Your task to perform on an android device: check storage Image 0: 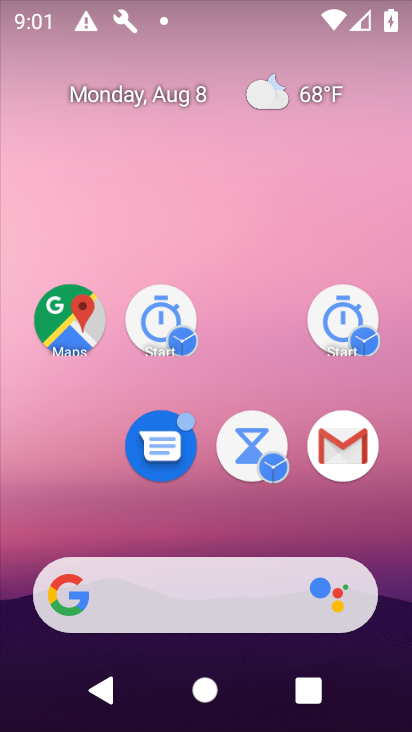
Step 0: drag from (238, 375) to (229, 132)
Your task to perform on an android device: check storage Image 1: 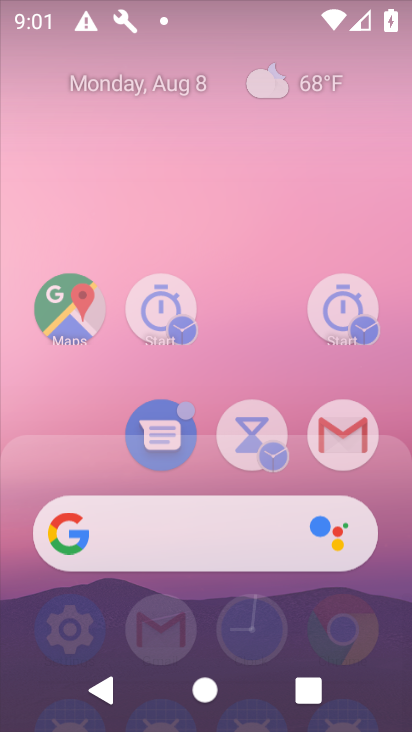
Step 1: drag from (221, 531) to (190, 165)
Your task to perform on an android device: check storage Image 2: 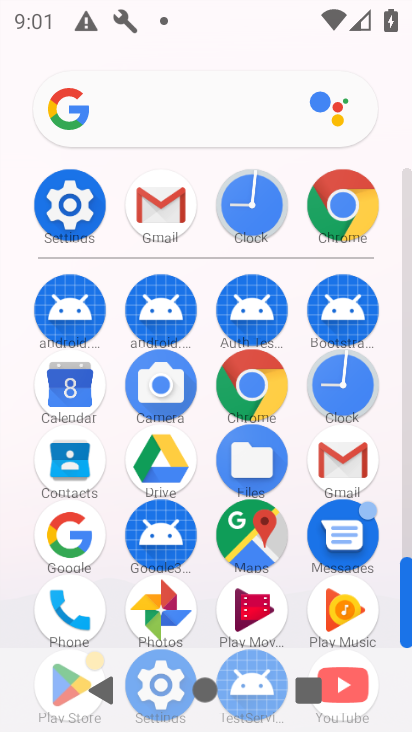
Step 2: drag from (220, 179) to (211, 5)
Your task to perform on an android device: check storage Image 3: 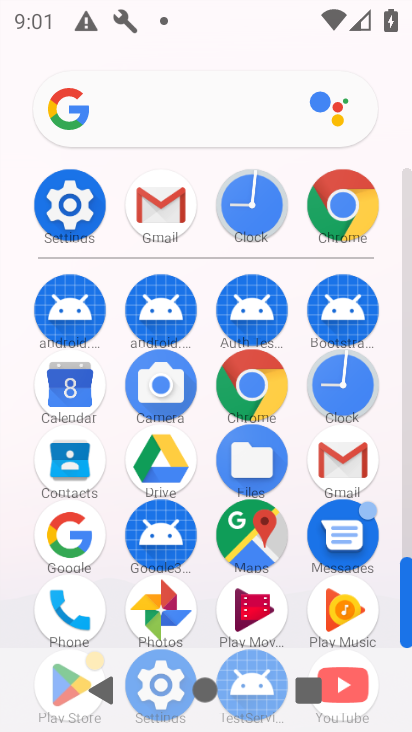
Step 3: drag from (203, 445) to (217, 254)
Your task to perform on an android device: check storage Image 4: 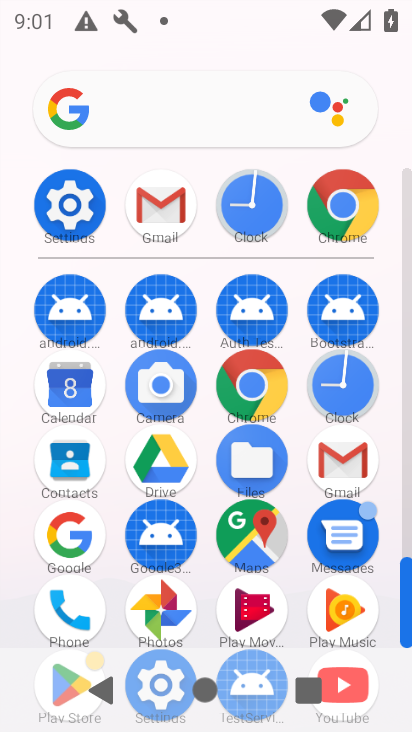
Step 4: drag from (227, 427) to (225, 145)
Your task to perform on an android device: check storage Image 5: 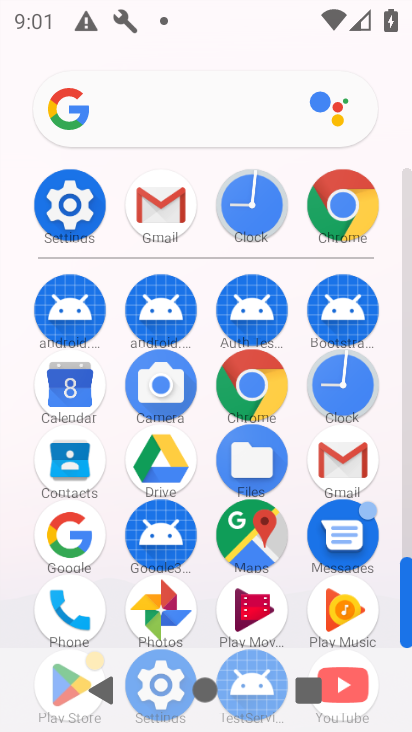
Step 5: drag from (184, 494) to (175, 201)
Your task to perform on an android device: check storage Image 6: 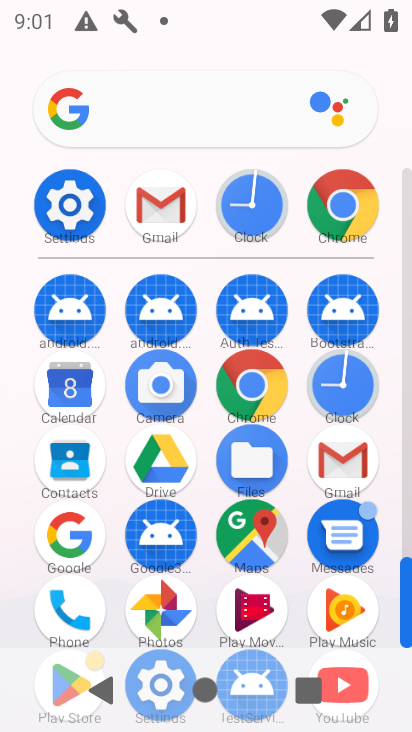
Step 6: drag from (223, 463) to (203, 184)
Your task to perform on an android device: check storage Image 7: 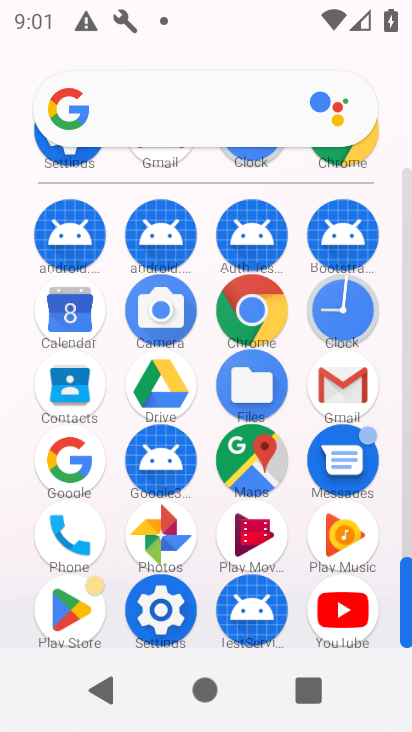
Step 7: drag from (162, 280) to (162, 225)
Your task to perform on an android device: check storage Image 8: 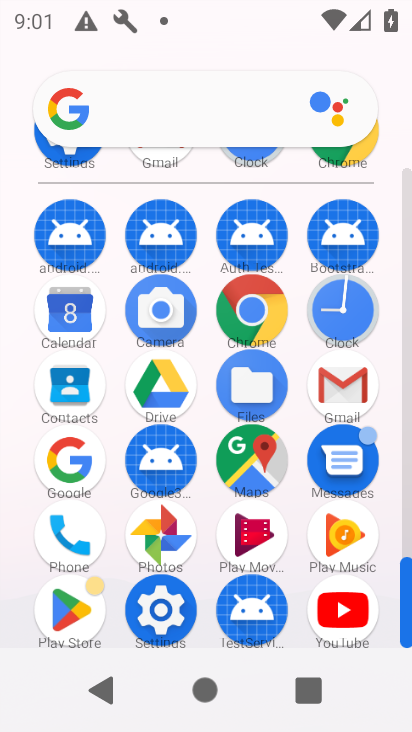
Step 8: click (161, 626)
Your task to perform on an android device: check storage Image 9: 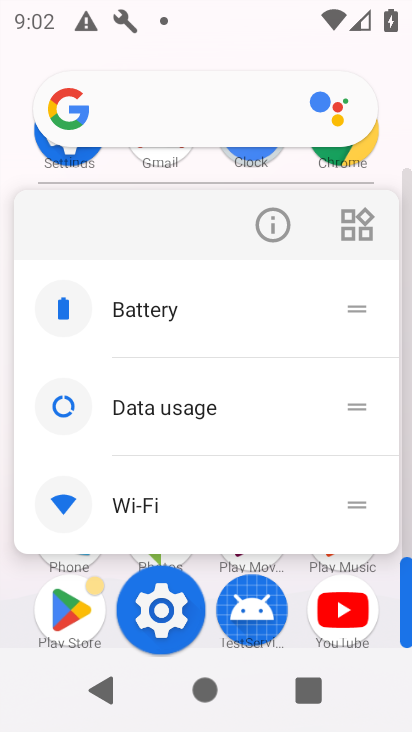
Step 9: click (165, 614)
Your task to perform on an android device: check storage Image 10: 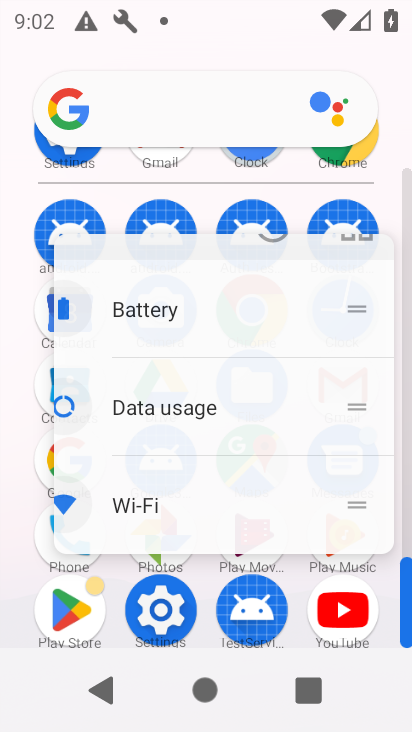
Step 10: click (164, 613)
Your task to perform on an android device: check storage Image 11: 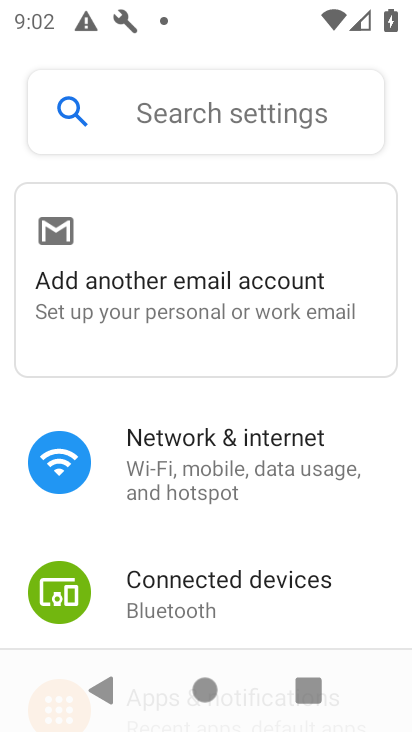
Step 11: drag from (210, 554) to (189, 442)
Your task to perform on an android device: check storage Image 12: 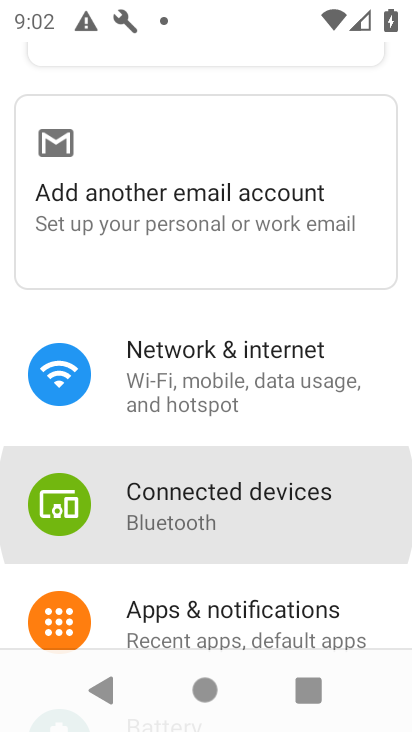
Step 12: drag from (198, 519) to (198, 414)
Your task to perform on an android device: check storage Image 13: 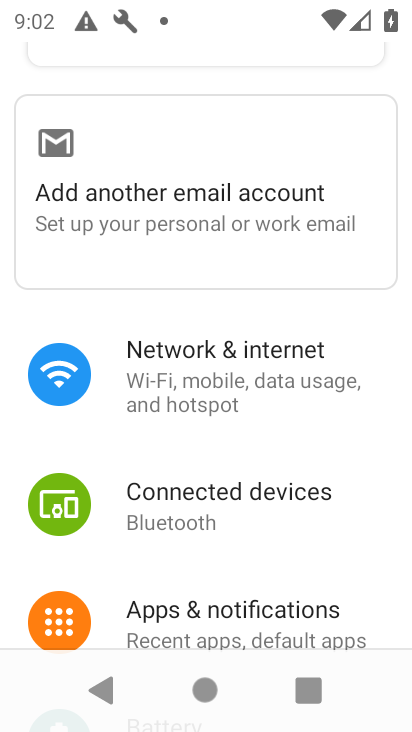
Step 13: click (213, 233)
Your task to perform on an android device: check storage Image 14: 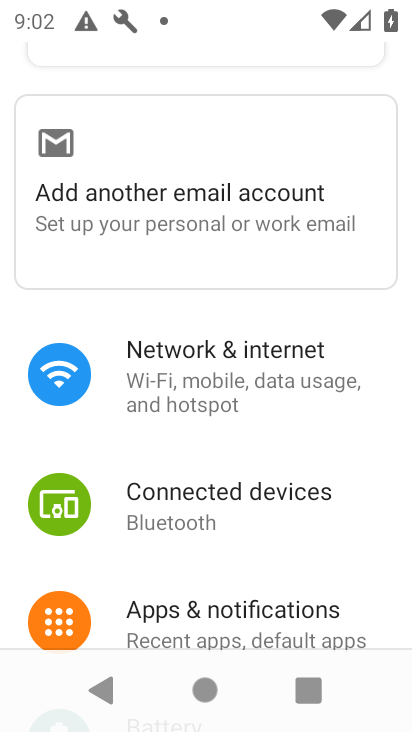
Step 14: drag from (201, 480) to (191, 334)
Your task to perform on an android device: check storage Image 15: 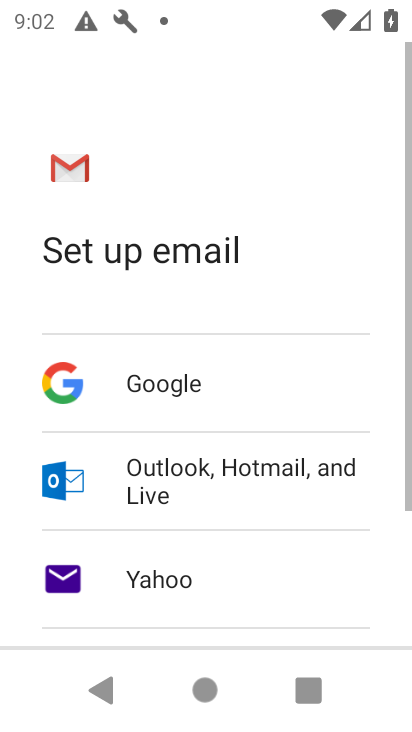
Step 15: drag from (221, 490) to (221, 315)
Your task to perform on an android device: check storage Image 16: 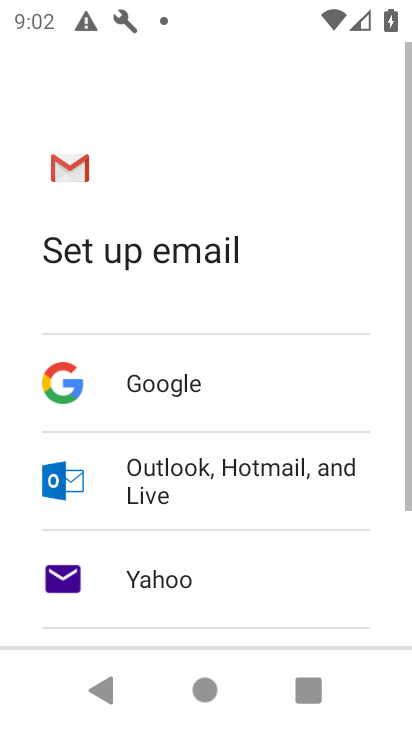
Step 16: click (286, 342)
Your task to perform on an android device: check storage Image 17: 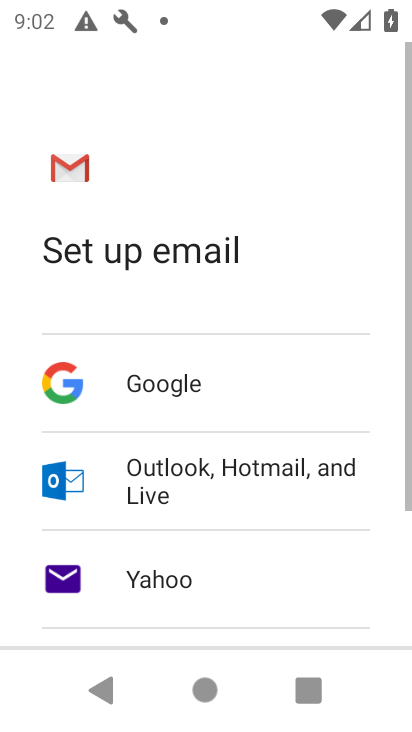
Step 17: drag from (237, 363) to (240, 446)
Your task to perform on an android device: check storage Image 18: 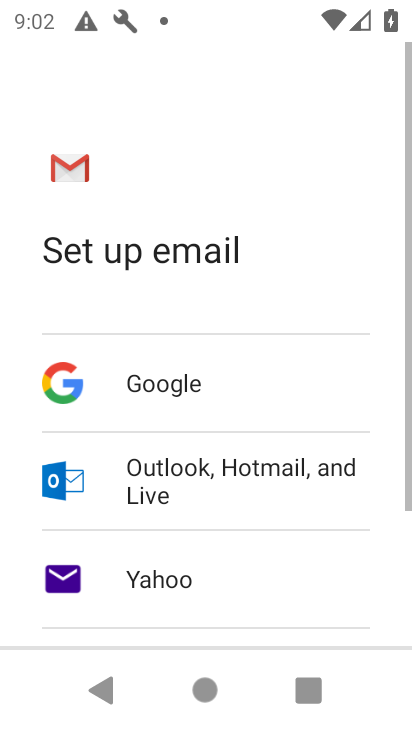
Step 18: press back button
Your task to perform on an android device: check storage Image 19: 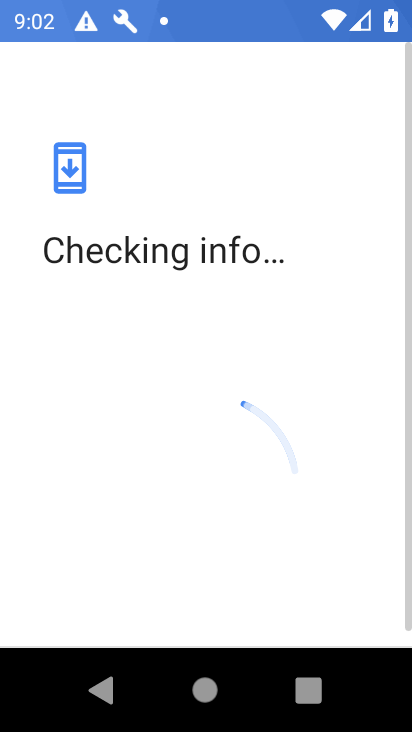
Step 19: press home button
Your task to perform on an android device: check storage Image 20: 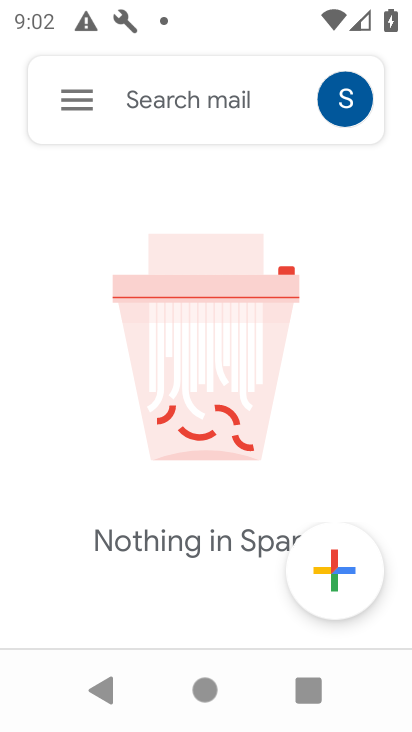
Step 20: press back button
Your task to perform on an android device: check storage Image 21: 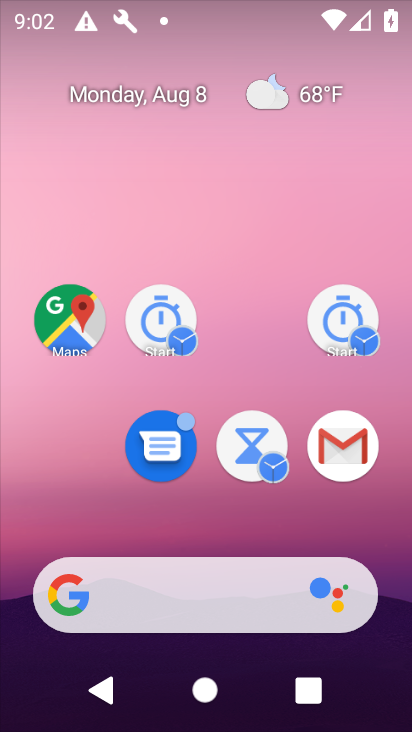
Step 21: drag from (227, 541) to (207, 121)
Your task to perform on an android device: check storage Image 22: 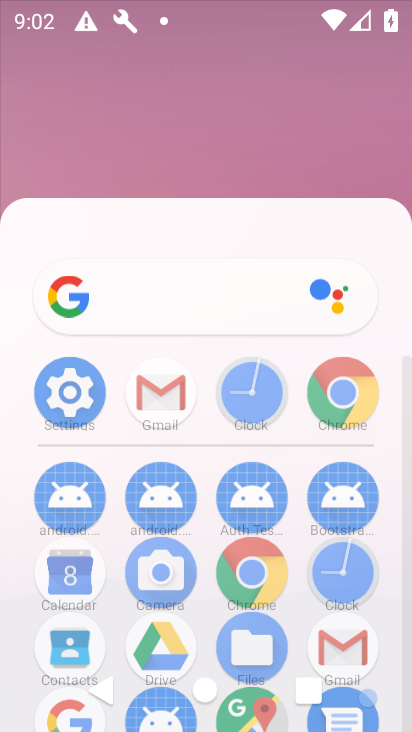
Step 22: drag from (271, 387) to (246, 125)
Your task to perform on an android device: check storage Image 23: 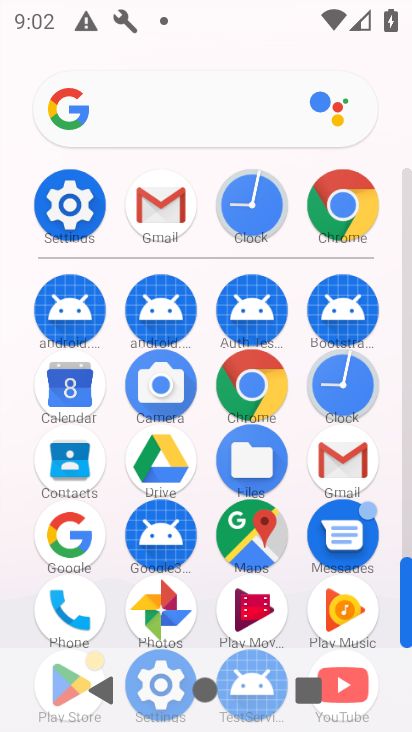
Step 23: click (70, 204)
Your task to perform on an android device: check storage Image 24: 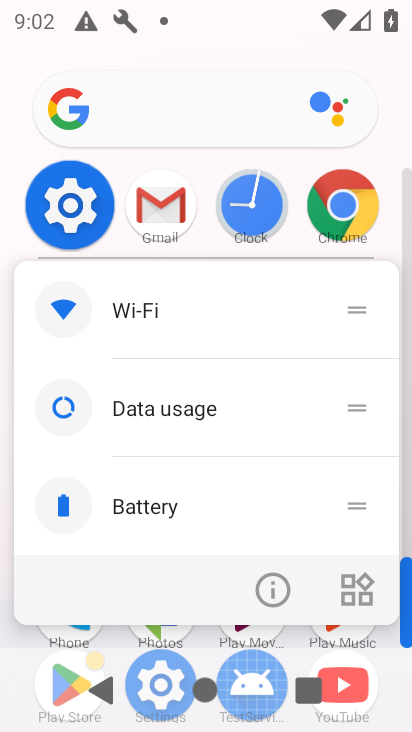
Step 24: click (68, 208)
Your task to perform on an android device: check storage Image 25: 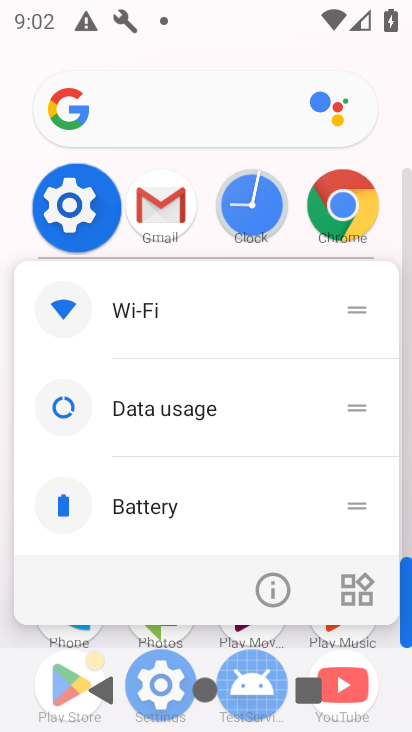
Step 25: click (76, 215)
Your task to perform on an android device: check storage Image 26: 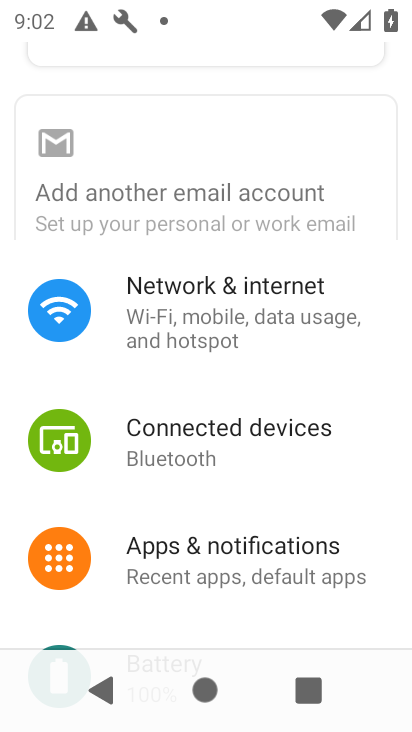
Step 26: click (77, 217)
Your task to perform on an android device: check storage Image 27: 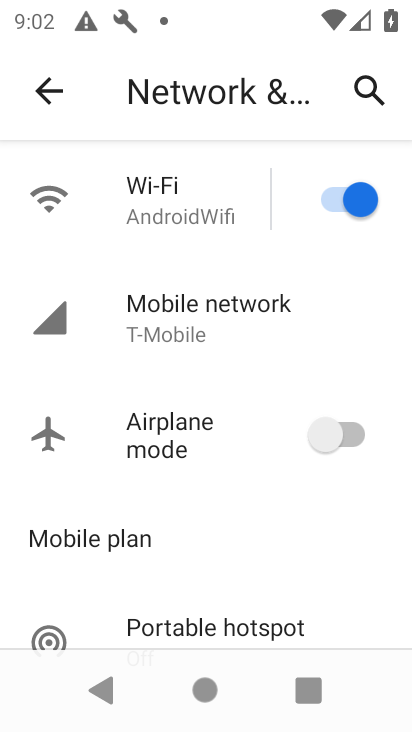
Step 27: click (51, 93)
Your task to perform on an android device: check storage Image 28: 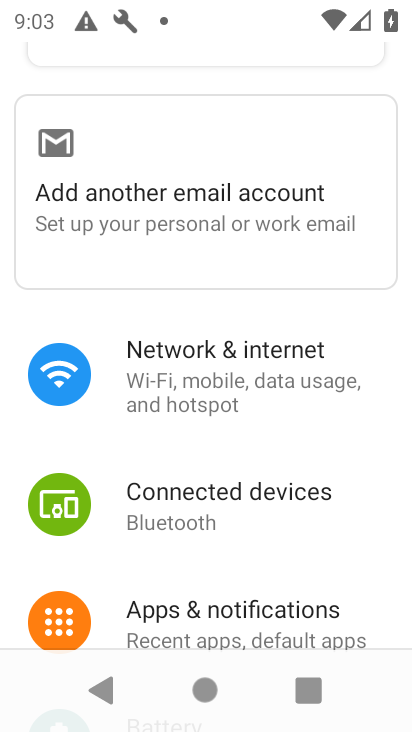
Step 28: task complete